Your task to perform on an android device: toggle improve location accuracy Image 0: 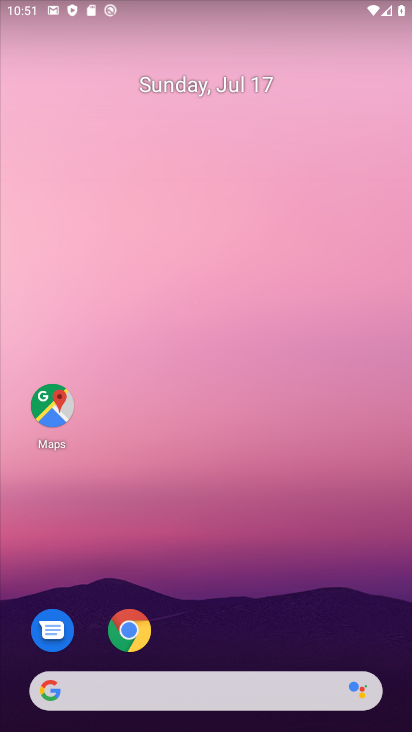
Step 0: drag from (180, 649) to (276, 72)
Your task to perform on an android device: toggle improve location accuracy Image 1: 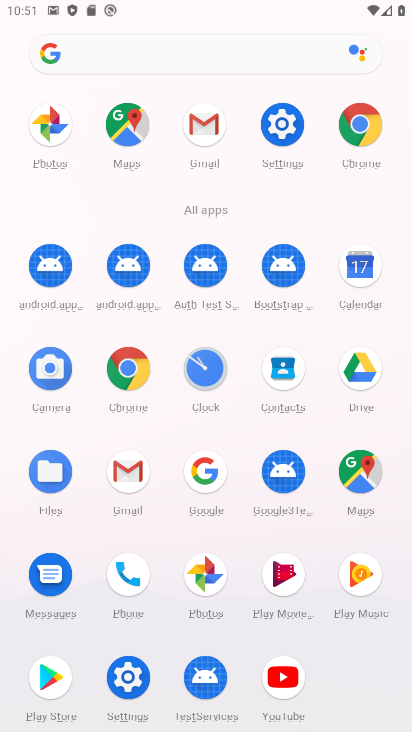
Step 1: click (128, 678)
Your task to perform on an android device: toggle improve location accuracy Image 2: 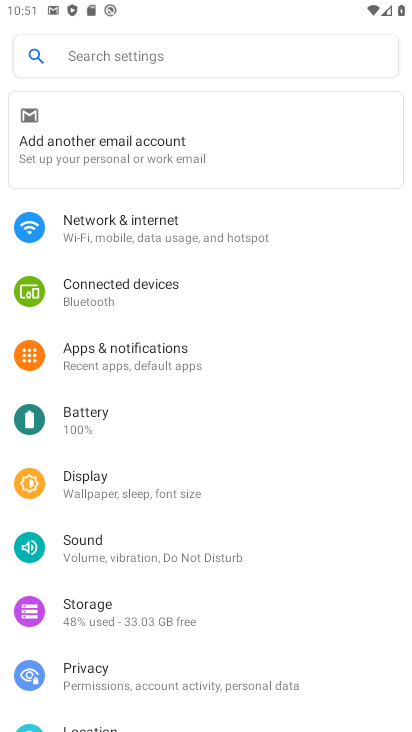
Step 2: drag from (114, 692) to (152, 498)
Your task to perform on an android device: toggle improve location accuracy Image 3: 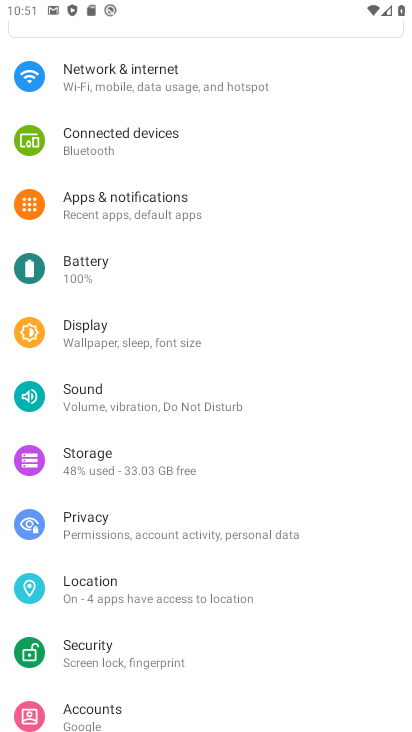
Step 3: click (140, 595)
Your task to perform on an android device: toggle improve location accuracy Image 4: 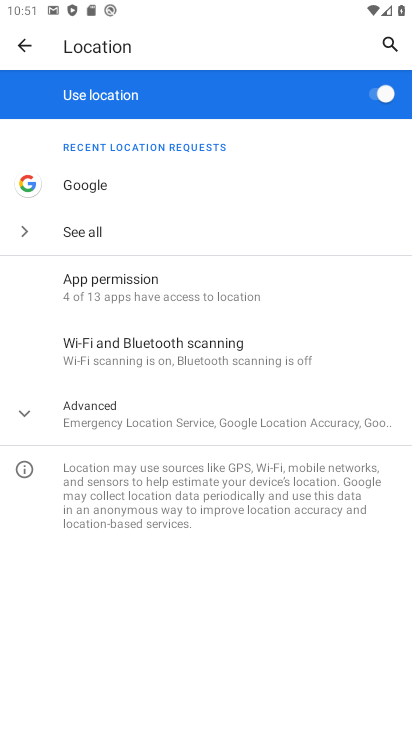
Step 4: click (190, 432)
Your task to perform on an android device: toggle improve location accuracy Image 5: 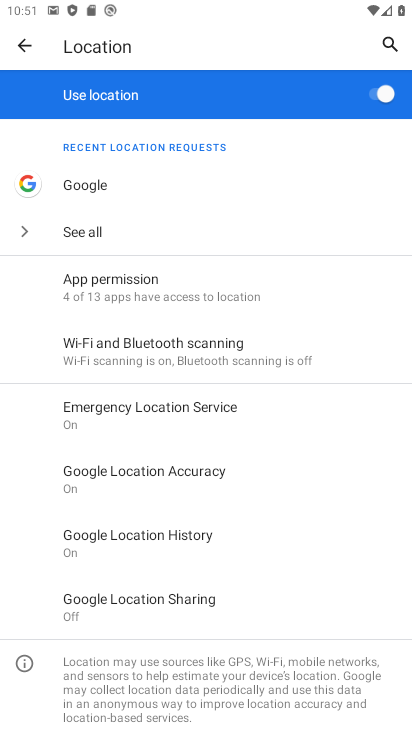
Step 5: click (192, 487)
Your task to perform on an android device: toggle improve location accuracy Image 6: 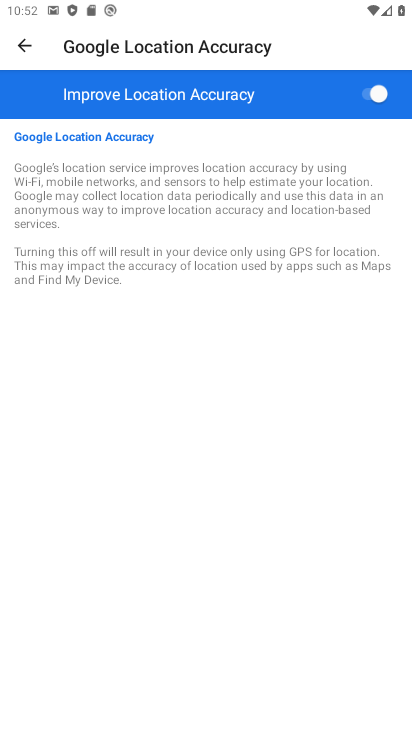
Step 6: click (355, 94)
Your task to perform on an android device: toggle improve location accuracy Image 7: 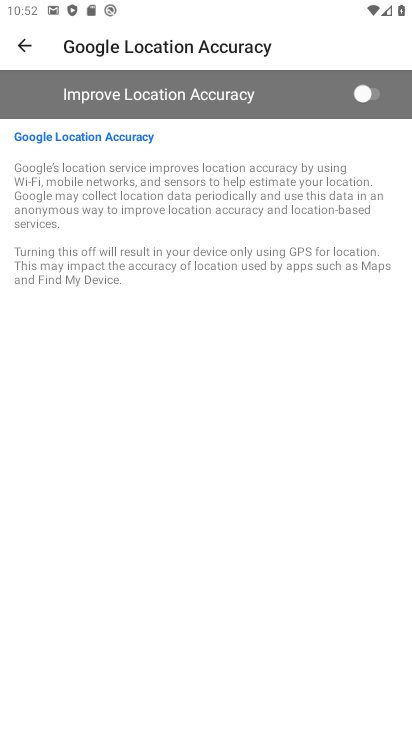
Step 7: task complete